Your task to perform on an android device: turn on priority inbox in the gmail app Image 0: 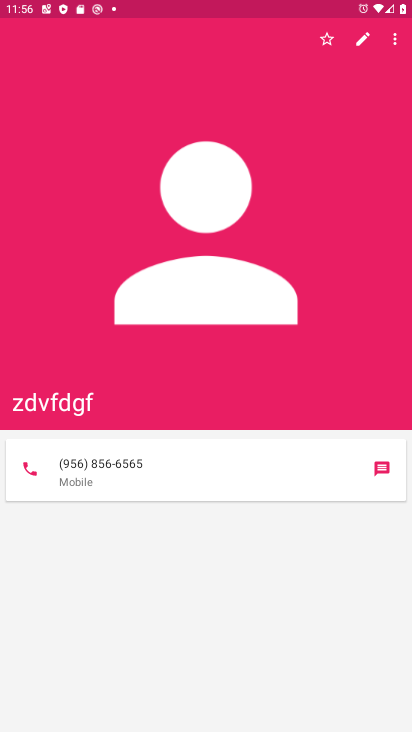
Step 0: press home button
Your task to perform on an android device: turn on priority inbox in the gmail app Image 1: 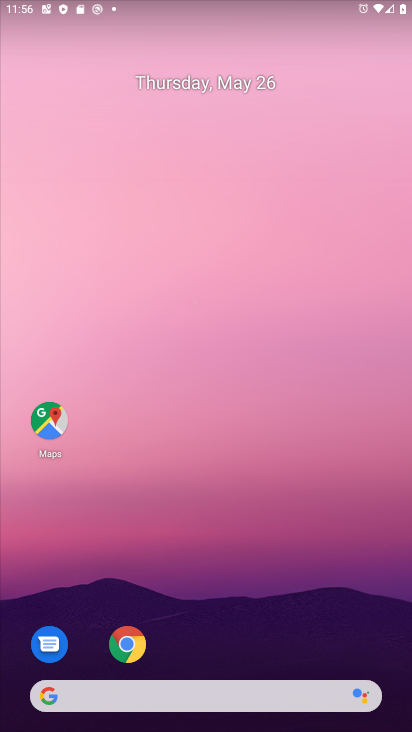
Step 1: drag from (235, 631) to (243, 111)
Your task to perform on an android device: turn on priority inbox in the gmail app Image 2: 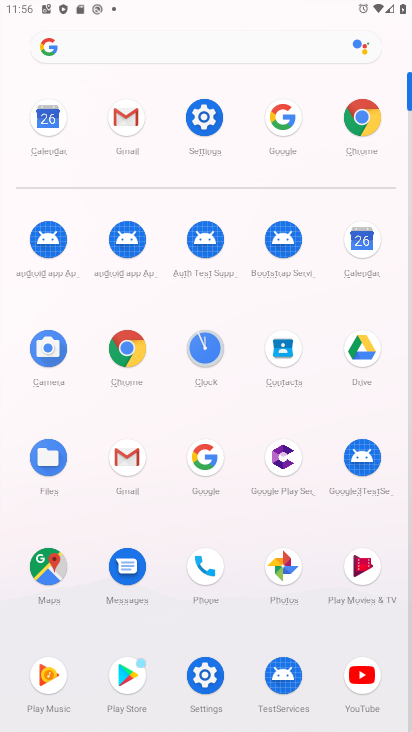
Step 2: click (136, 457)
Your task to perform on an android device: turn on priority inbox in the gmail app Image 3: 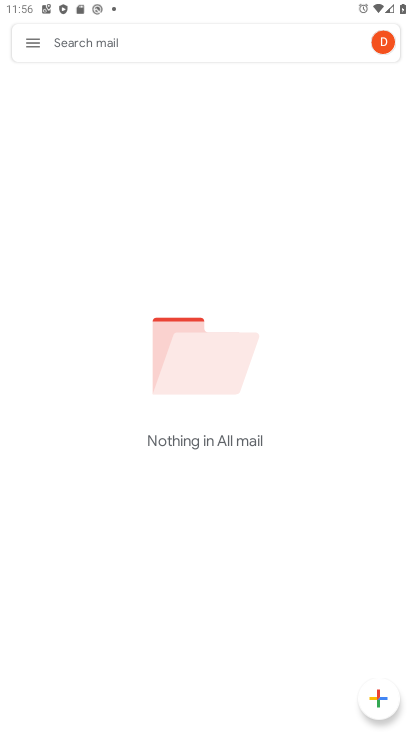
Step 3: click (27, 40)
Your task to perform on an android device: turn on priority inbox in the gmail app Image 4: 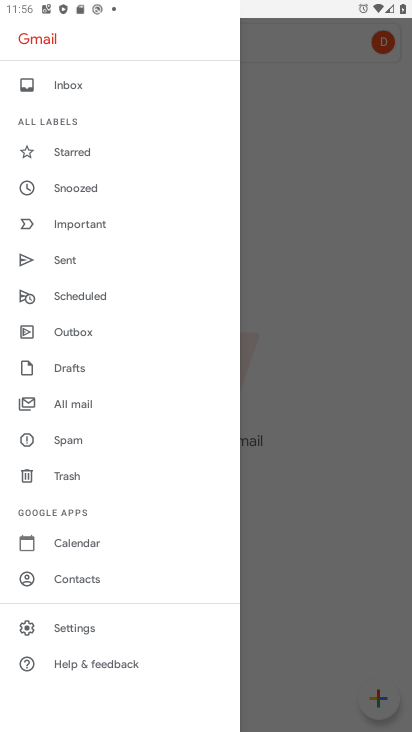
Step 4: click (93, 621)
Your task to perform on an android device: turn on priority inbox in the gmail app Image 5: 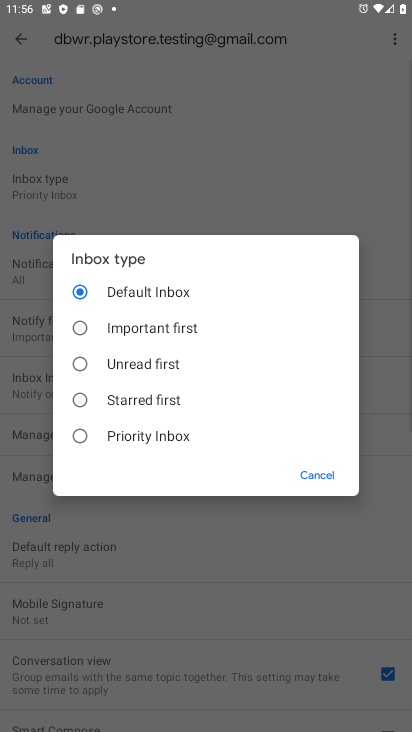
Step 5: click (149, 440)
Your task to perform on an android device: turn on priority inbox in the gmail app Image 6: 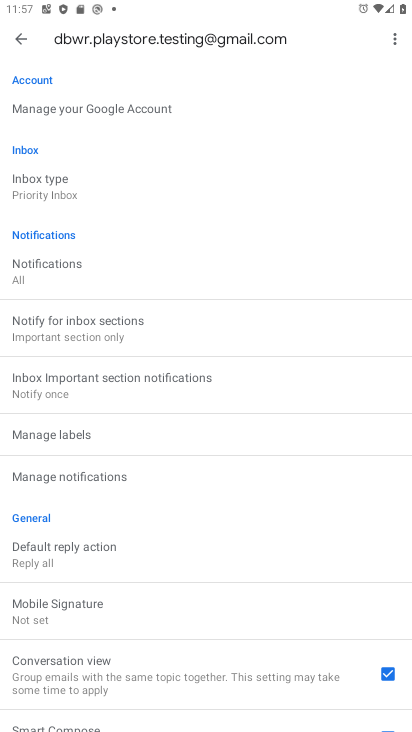
Step 6: task complete